Your task to perform on an android device: Go to notification settings Image 0: 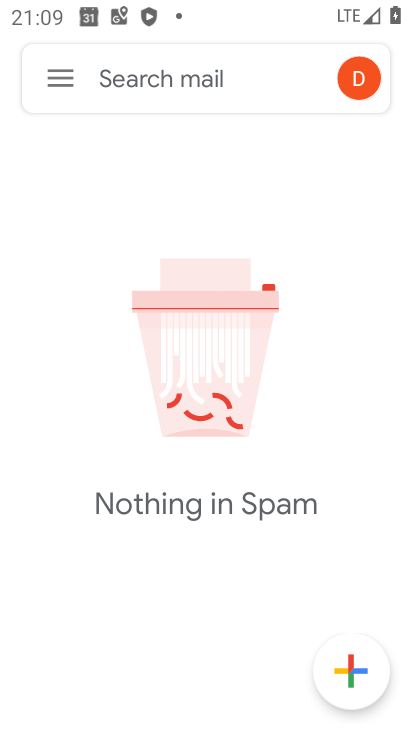
Step 0: press home button
Your task to perform on an android device: Go to notification settings Image 1: 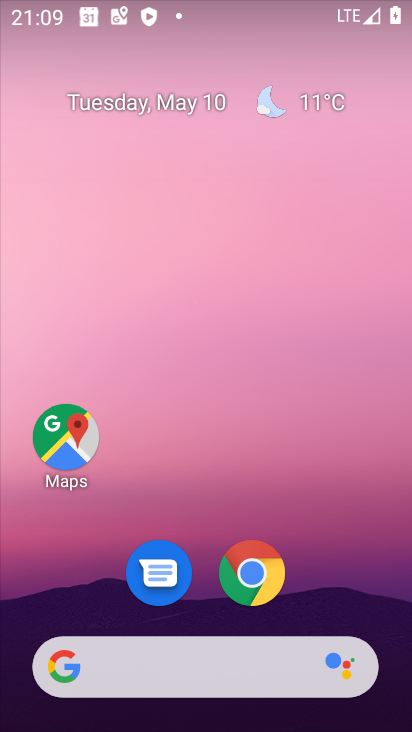
Step 1: drag from (380, 610) to (406, 85)
Your task to perform on an android device: Go to notification settings Image 2: 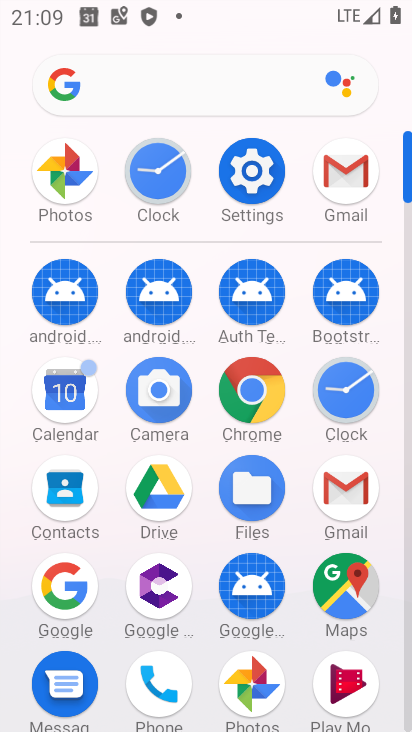
Step 2: click (250, 181)
Your task to perform on an android device: Go to notification settings Image 3: 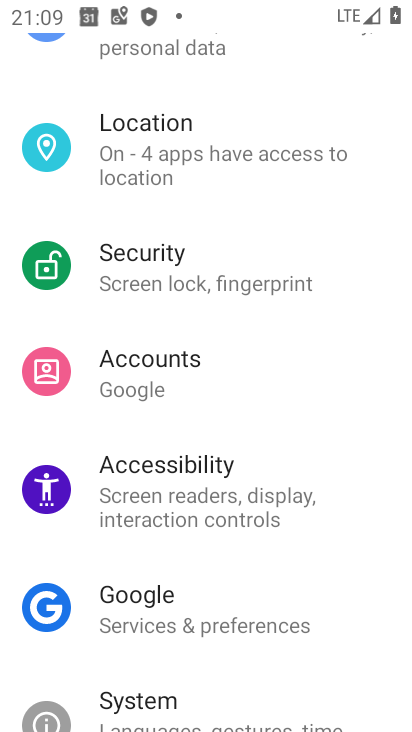
Step 3: drag from (359, 281) to (384, 539)
Your task to perform on an android device: Go to notification settings Image 4: 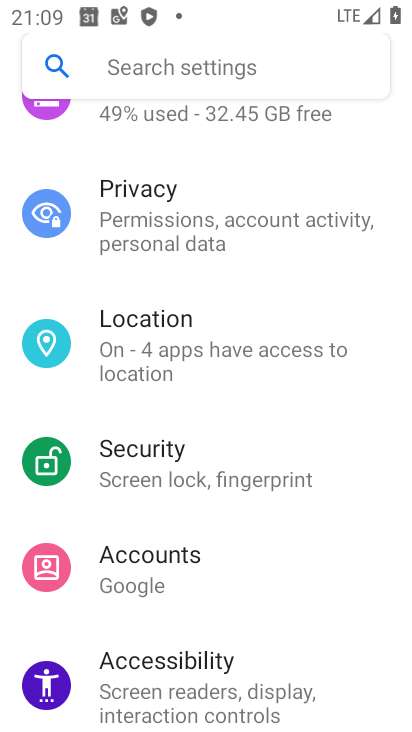
Step 4: drag from (324, 337) to (337, 642)
Your task to perform on an android device: Go to notification settings Image 5: 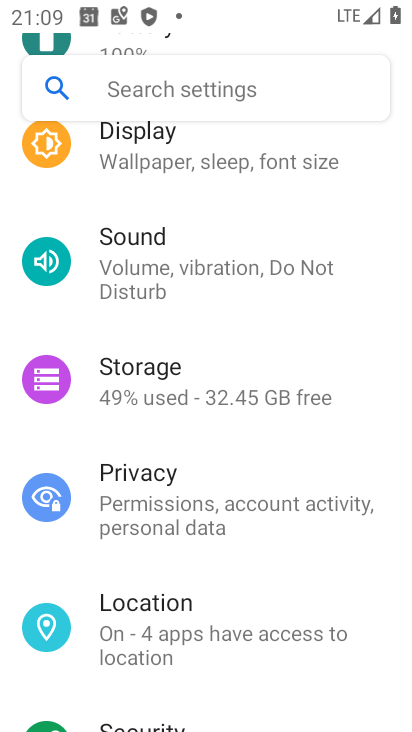
Step 5: drag from (341, 258) to (347, 589)
Your task to perform on an android device: Go to notification settings Image 6: 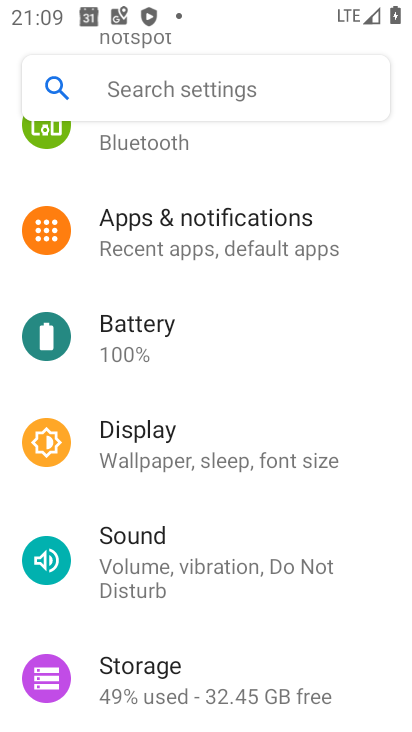
Step 6: click (222, 231)
Your task to perform on an android device: Go to notification settings Image 7: 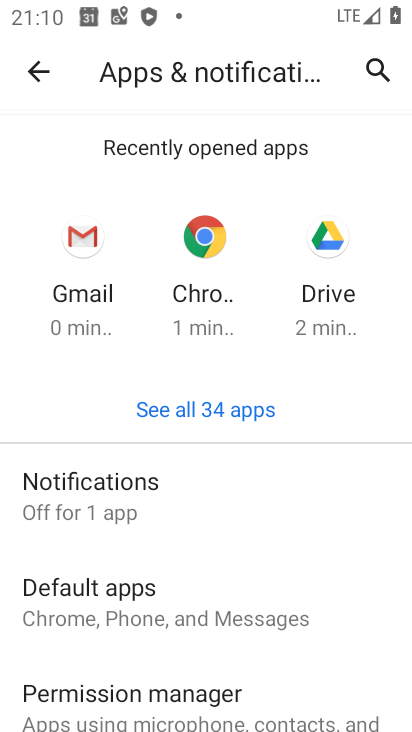
Step 7: task complete